Your task to perform on an android device: Play the last video I watched on Youtube Image 0: 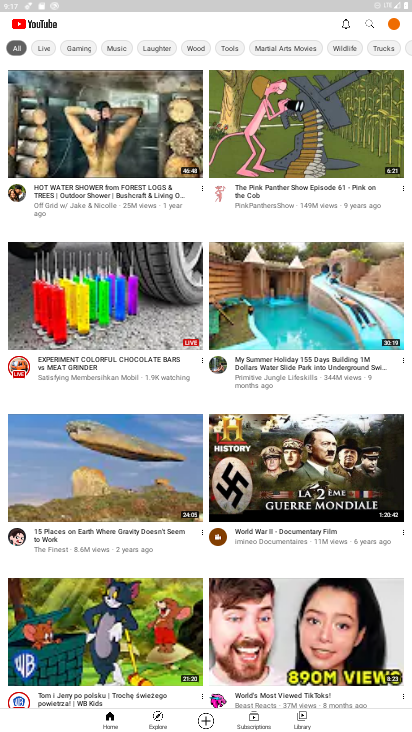
Step 0: click (303, 727)
Your task to perform on an android device: Play the last video I watched on Youtube Image 1: 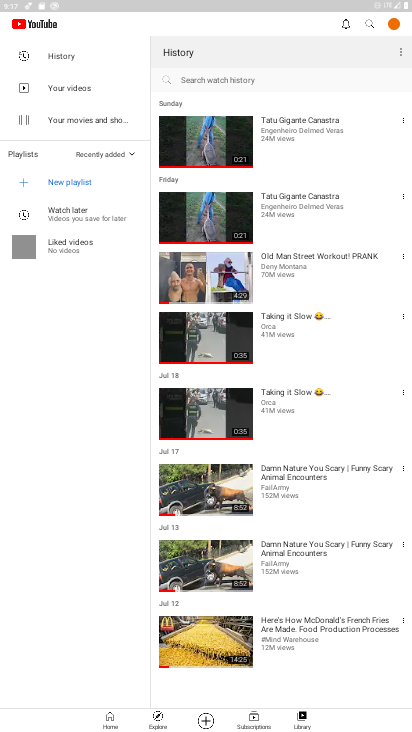
Step 1: click (250, 132)
Your task to perform on an android device: Play the last video I watched on Youtube Image 2: 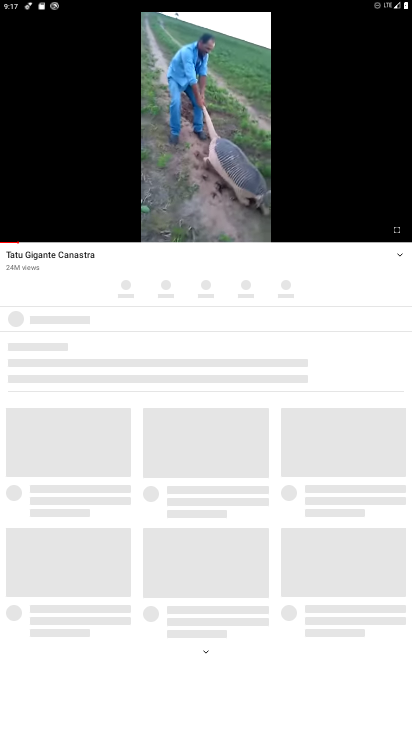
Step 2: click (202, 172)
Your task to perform on an android device: Play the last video I watched on Youtube Image 3: 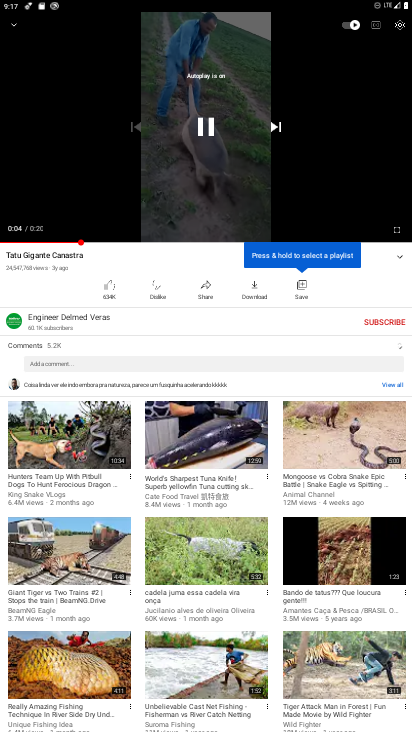
Step 3: click (197, 129)
Your task to perform on an android device: Play the last video I watched on Youtube Image 4: 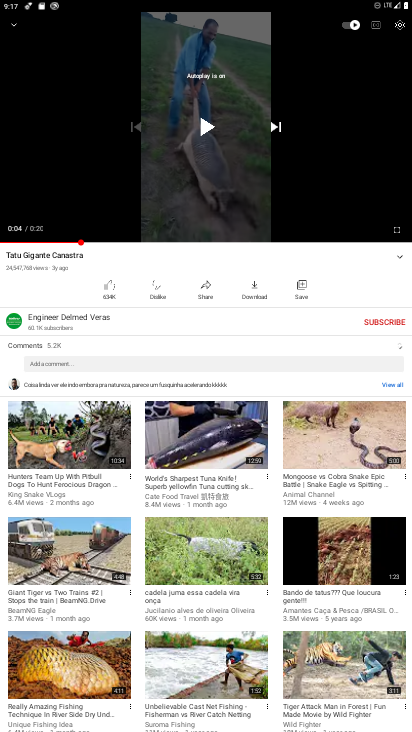
Step 4: task complete